Your task to perform on an android device: See recent photos Image 0: 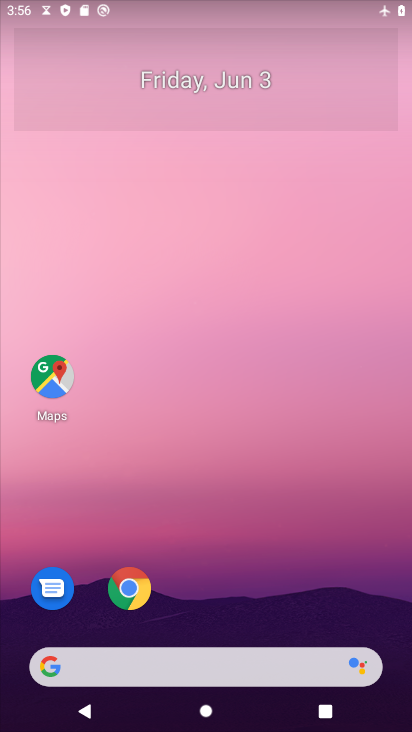
Step 0: drag from (250, 606) to (209, 179)
Your task to perform on an android device: See recent photos Image 1: 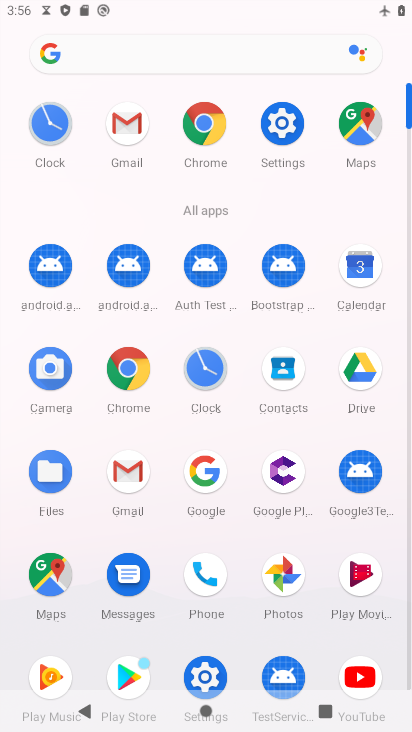
Step 1: click (286, 561)
Your task to perform on an android device: See recent photos Image 2: 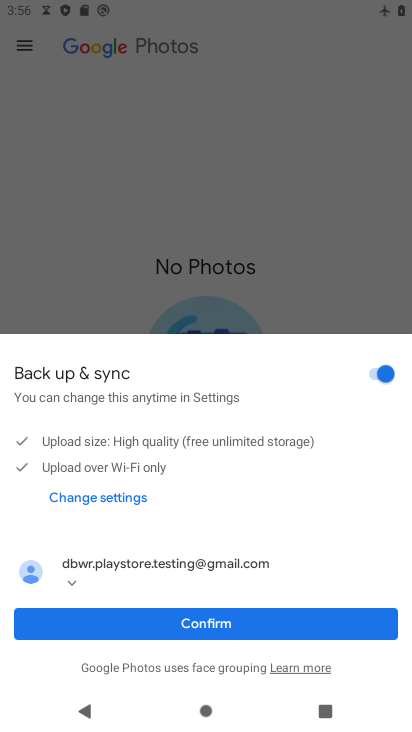
Step 2: click (272, 622)
Your task to perform on an android device: See recent photos Image 3: 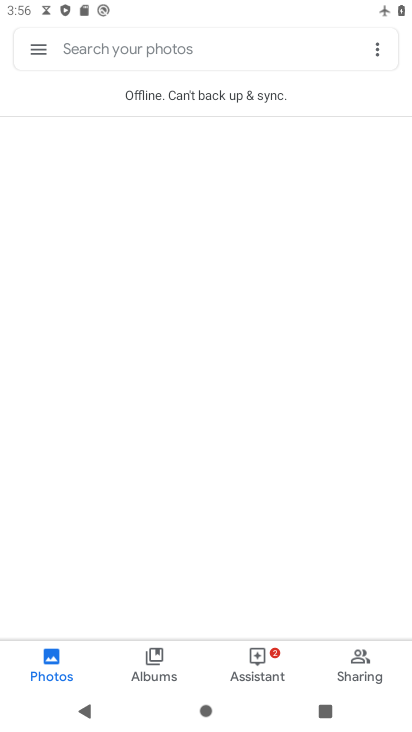
Step 3: task complete